Your task to perform on an android device: Open Maps and search for coffee Image 0: 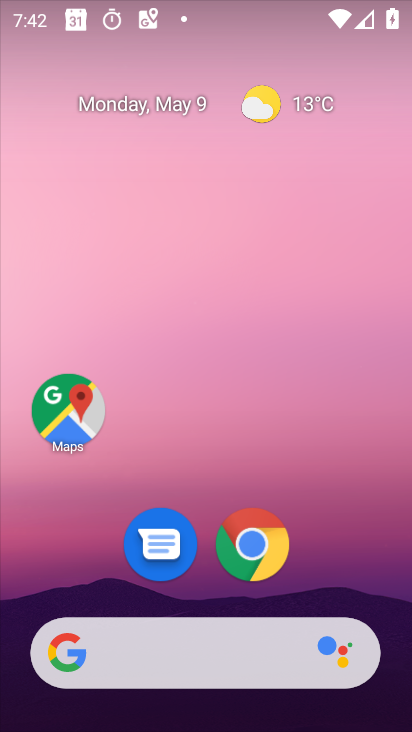
Step 0: drag from (372, 556) to (307, 5)
Your task to perform on an android device: Open Maps and search for coffee Image 1: 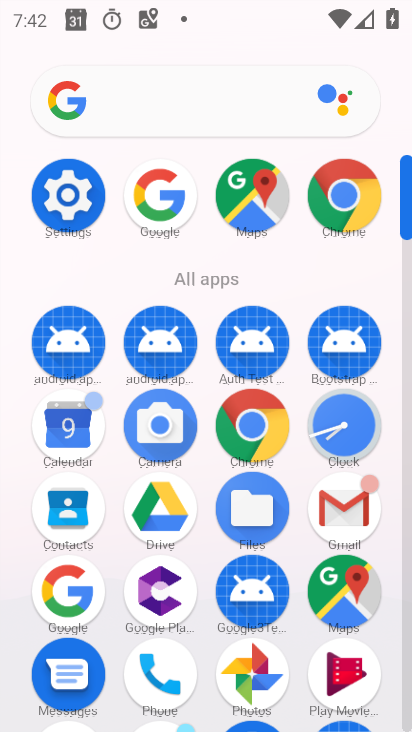
Step 1: click (266, 226)
Your task to perform on an android device: Open Maps and search for coffee Image 2: 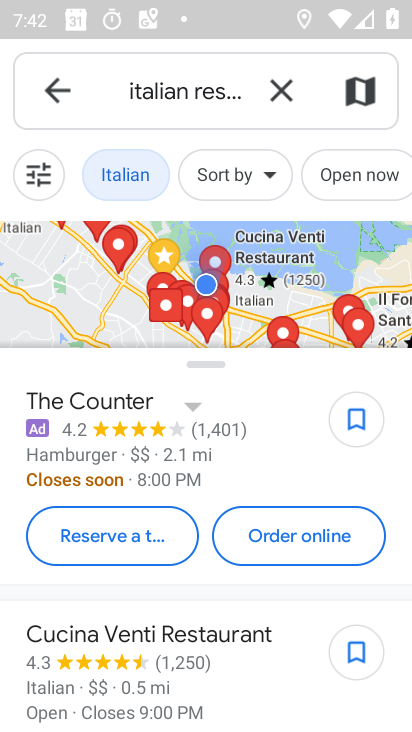
Step 2: click (274, 76)
Your task to perform on an android device: Open Maps and search for coffee Image 3: 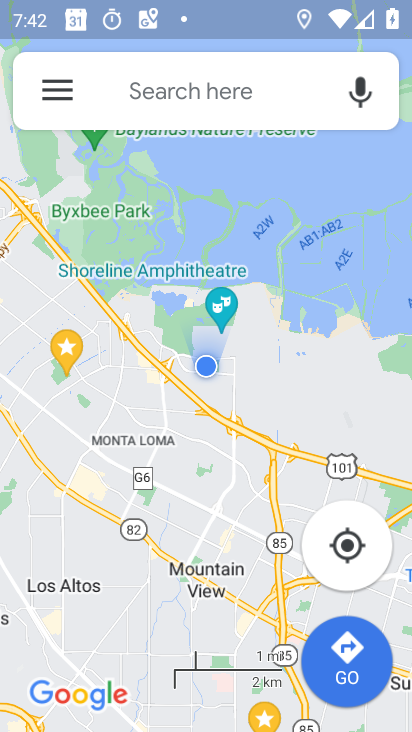
Step 3: click (208, 90)
Your task to perform on an android device: Open Maps and search for coffee Image 4: 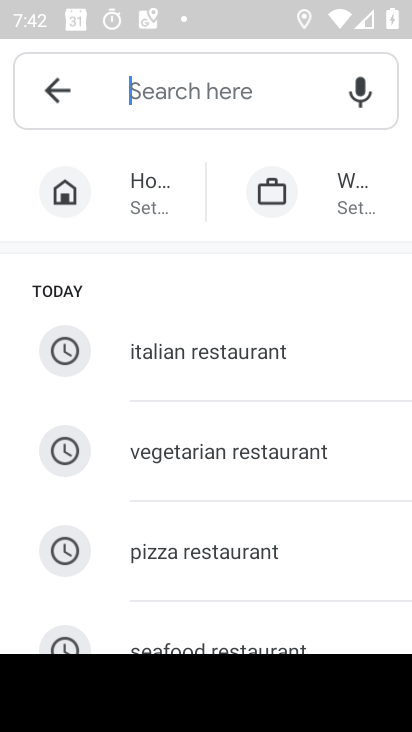
Step 4: drag from (316, 577) to (278, 175)
Your task to perform on an android device: Open Maps and search for coffee Image 5: 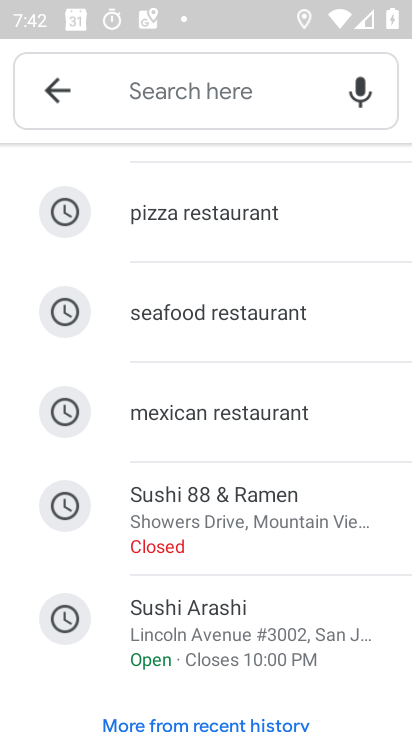
Step 5: drag from (212, 602) to (221, 207)
Your task to perform on an android device: Open Maps and search for coffee Image 6: 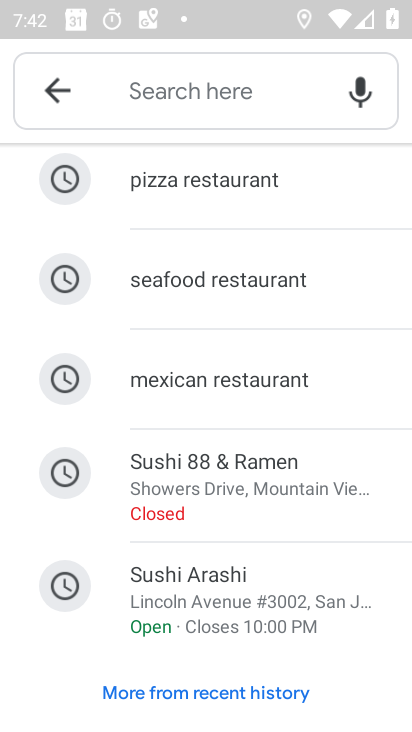
Step 6: drag from (221, 217) to (224, 650)
Your task to perform on an android device: Open Maps and search for coffee Image 7: 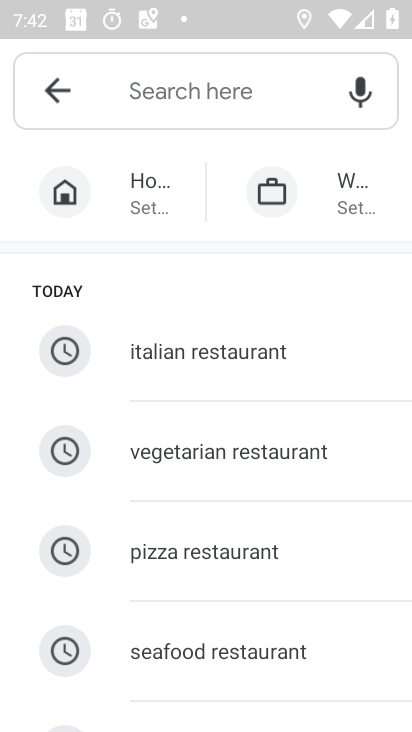
Step 7: click (167, 94)
Your task to perform on an android device: Open Maps and search for coffee Image 8: 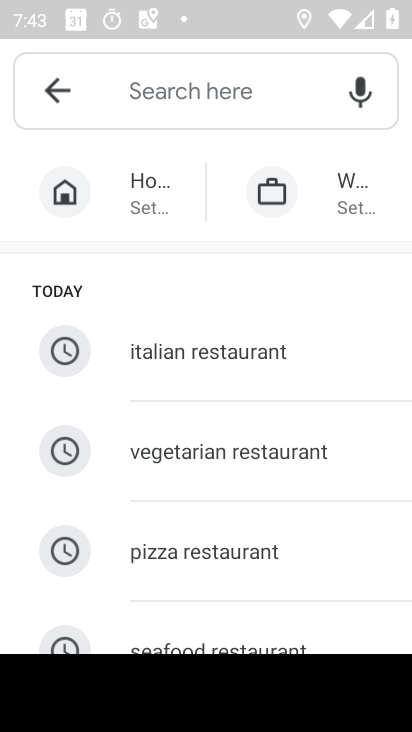
Step 8: type "coffee"
Your task to perform on an android device: Open Maps and search for coffee Image 9: 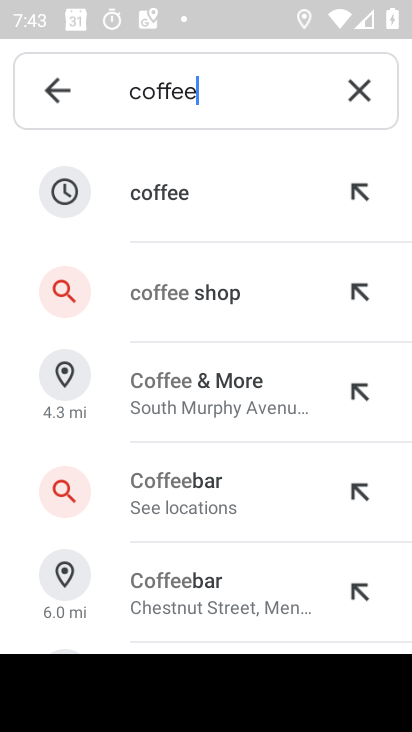
Step 9: click (178, 210)
Your task to perform on an android device: Open Maps and search for coffee Image 10: 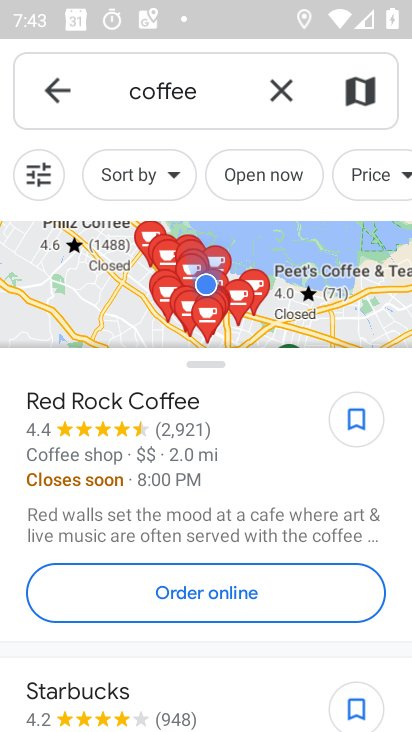
Step 10: task complete